Your task to perform on an android device: What's on my calendar today? Image 0: 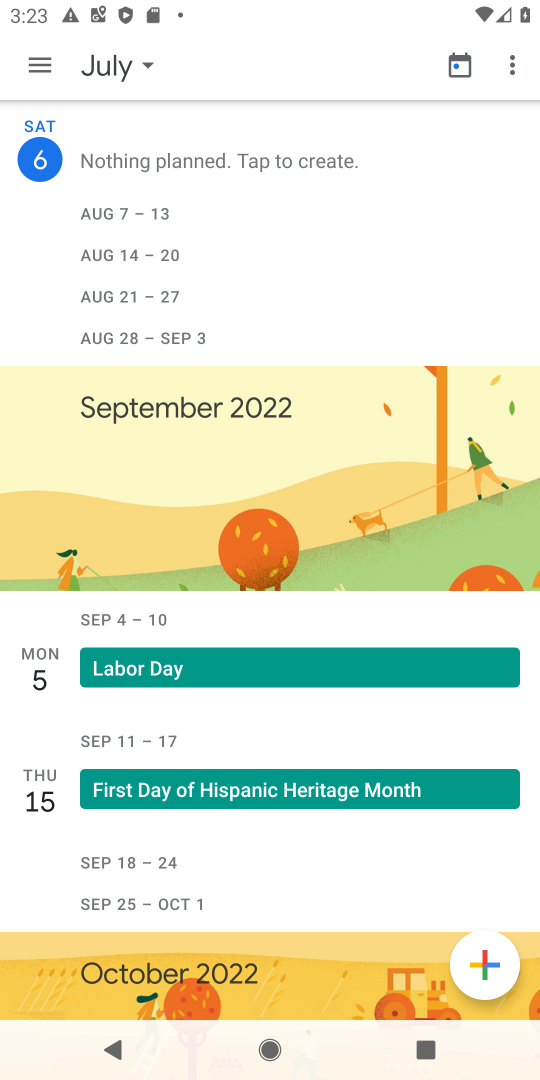
Step 0: task complete